Your task to perform on an android device: turn pop-ups on in chrome Image 0: 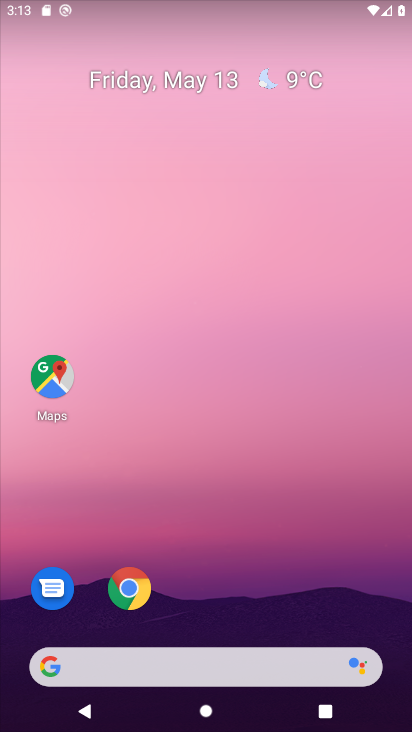
Step 0: click (133, 584)
Your task to perform on an android device: turn pop-ups on in chrome Image 1: 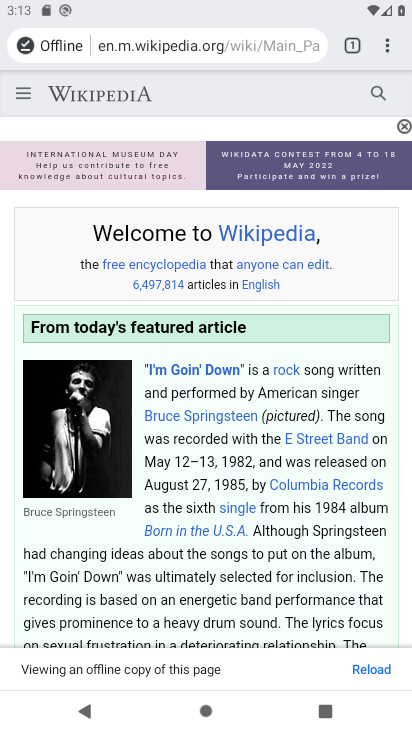
Step 1: click (391, 45)
Your task to perform on an android device: turn pop-ups on in chrome Image 2: 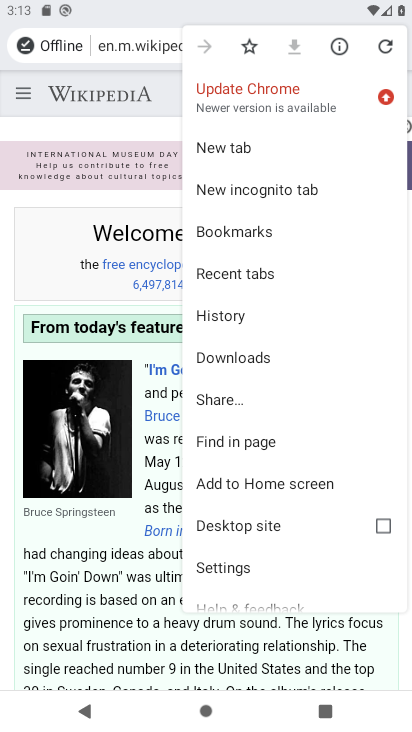
Step 2: click (254, 558)
Your task to perform on an android device: turn pop-ups on in chrome Image 3: 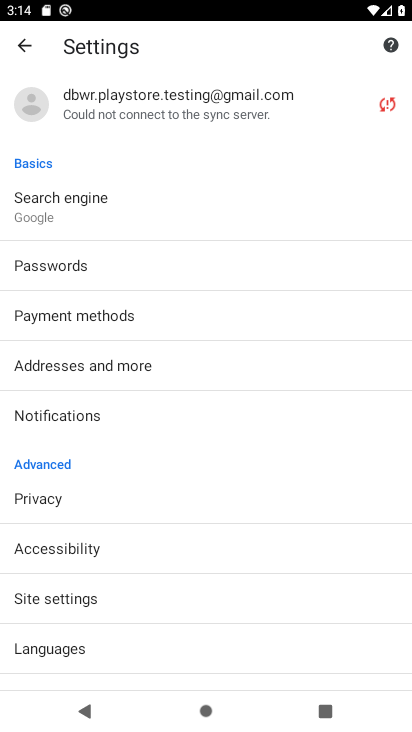
Step 3: click (136, 596)
Your task to perform on an android device: turn pop-ups on in chrome Image 4: 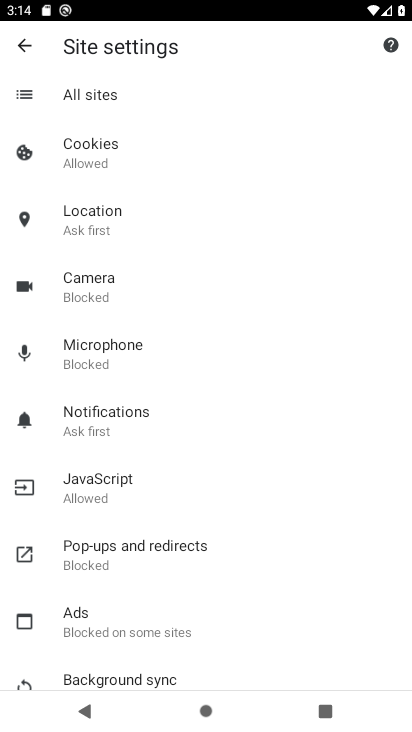
Step 4: click (120, 558)
Your task to perform on an android device: turn pop-ups on in chrome Image 5: 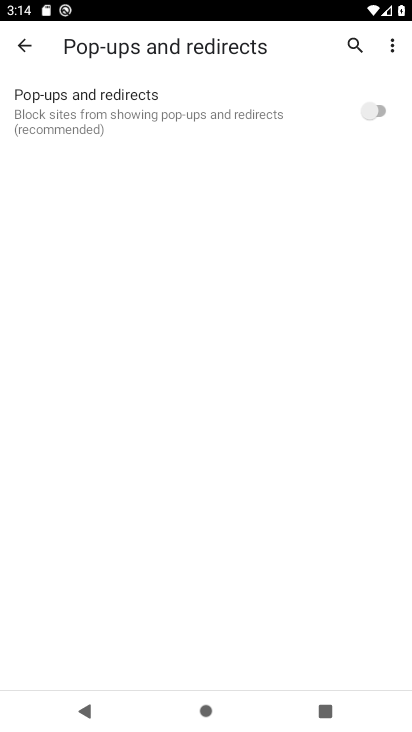
Step 5: click (366, 111)
Your task to perform on an android device: turn pop-ups on in chrome Image 6: 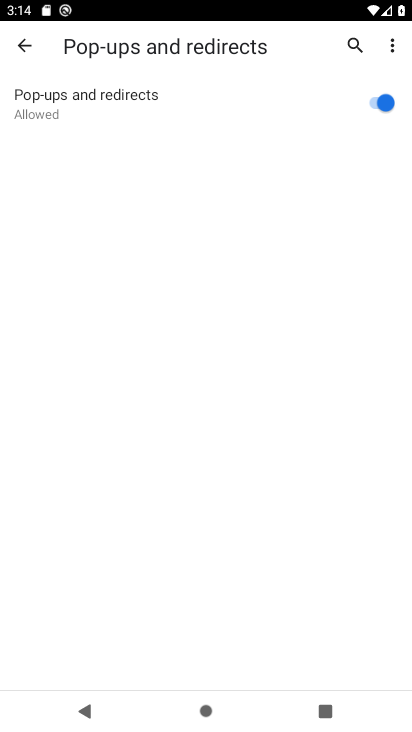
Step 6: task complete